Your task to perform on an android device: Go to network settings Image 0: 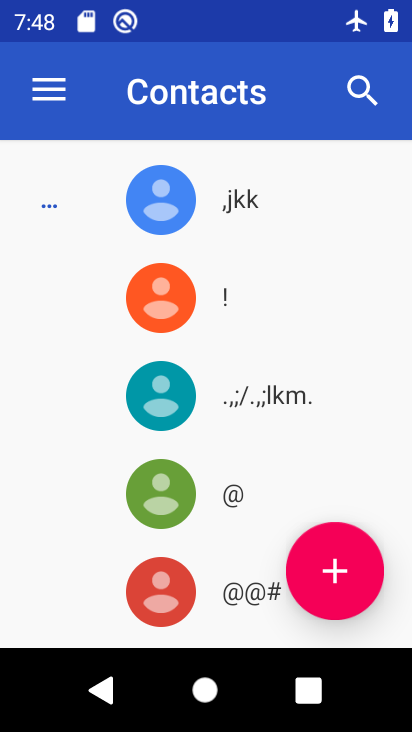
Step 0: press home button
Your task to perform on an android device: Go to network settings Image 1: 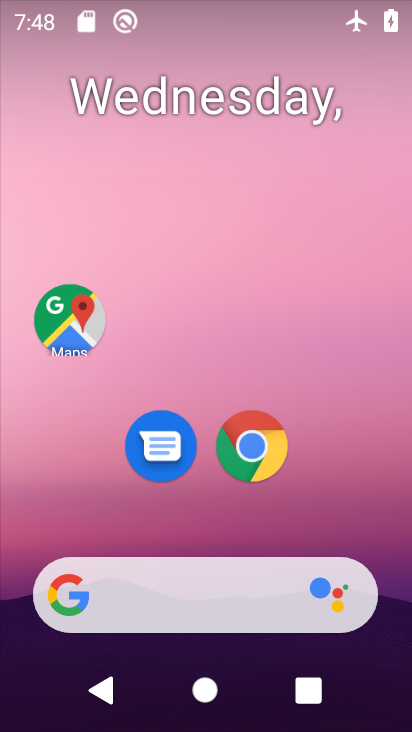
Step 1: drag from (207, 520) to (239, 65)
Your task to perform on an android device: Go to network settings Image 2: 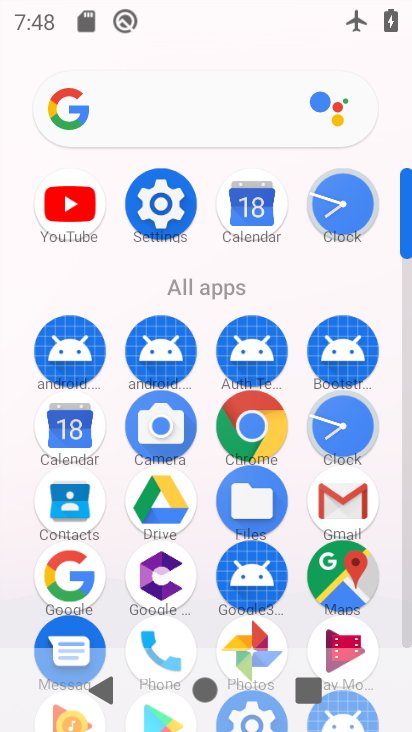
Step 2: click (166, 201)
Your task to perform on an android device: Go to network settings Image 3: 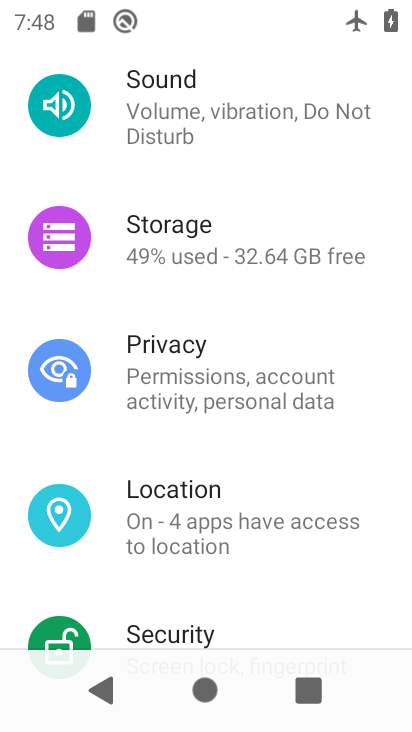
Step 3: drag from (204, 114) to (204, 698)
Your task to perform on an android device: Go to network settings Image 4: 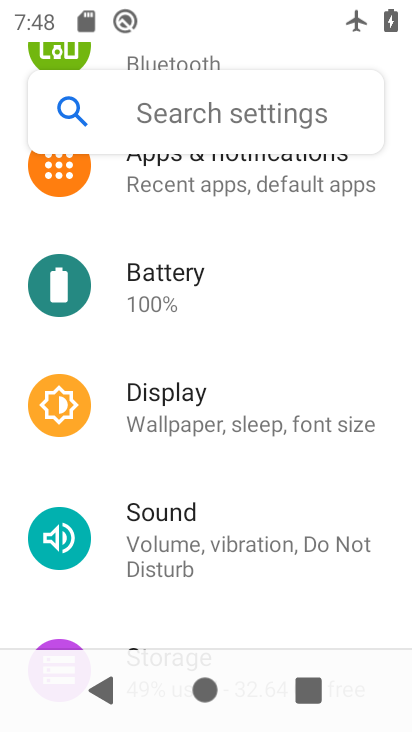
Step 4: drag from (212, 235) to (214, 635)
Your task to perform on an android device: Go to network settings Image 5: 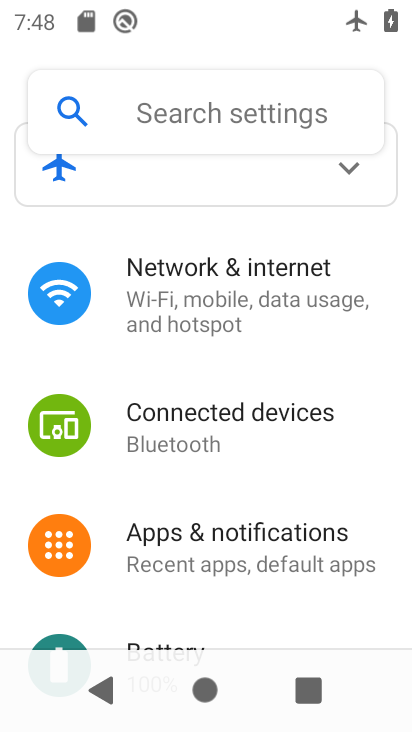
Step 5: click (197, 303)
Your task to perform on an android device: Go to network settings Image 6: 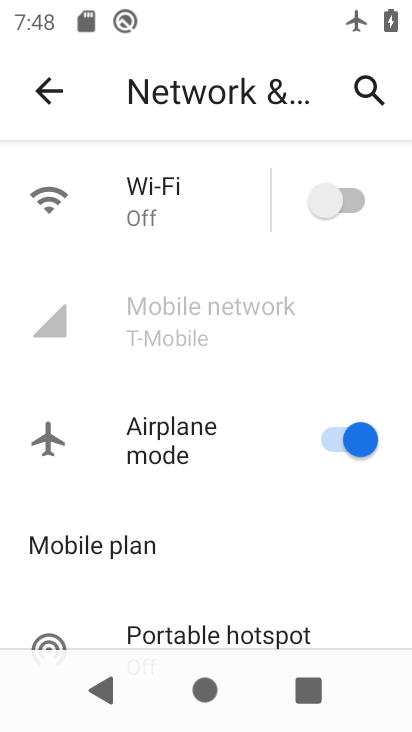
Step 6: drag from (181, 526) to (228, 111)
Your task to perform on an android device: Go to network settings Image 7: 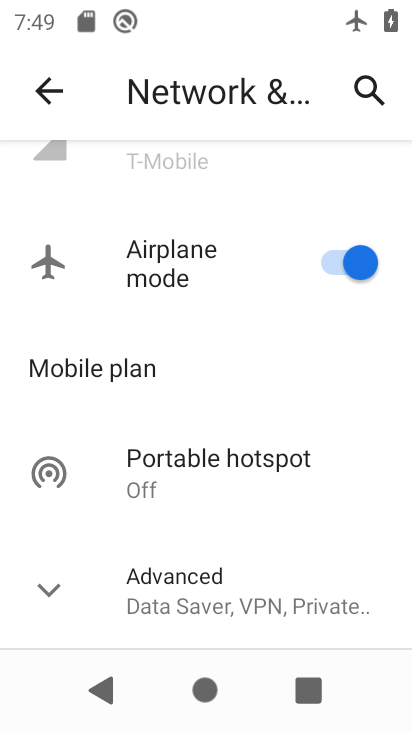
Step 7: click (49, 585)
Your task to perform on an android device: Go to network settings Image 8: 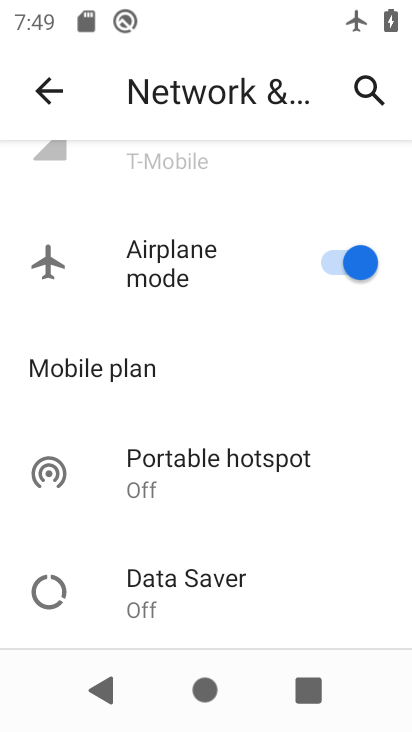
Step 8: task complete